Your task to perform on an android device: Go to accessibility settings Image 0: 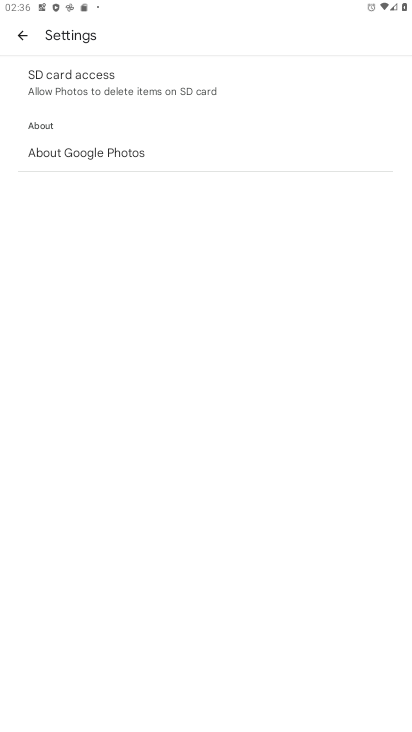
Step 0: press home button
Your task to perform on an android device: Go to accessibility settings Image 1: 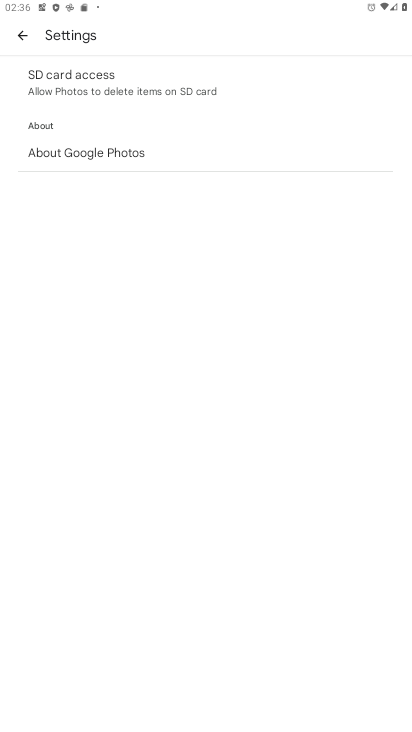
Step 1: press home button
Your task to perform on an android device: Go to accessibility settings Image 2: 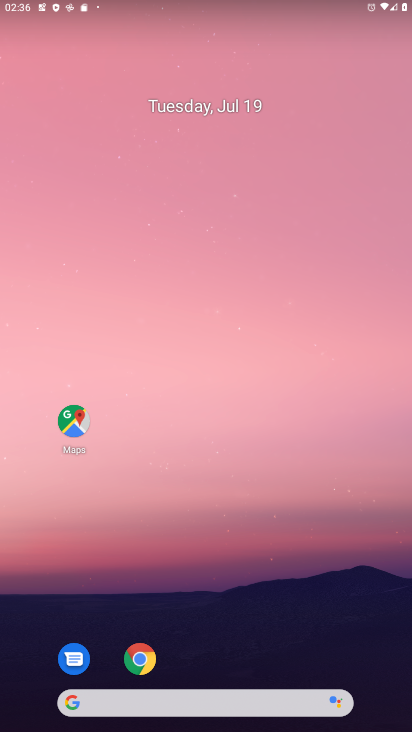
Step 2: drag from (271, 583) to (261, 9)
Your task to perform on an android device: Go to accessibility settings Image 3: 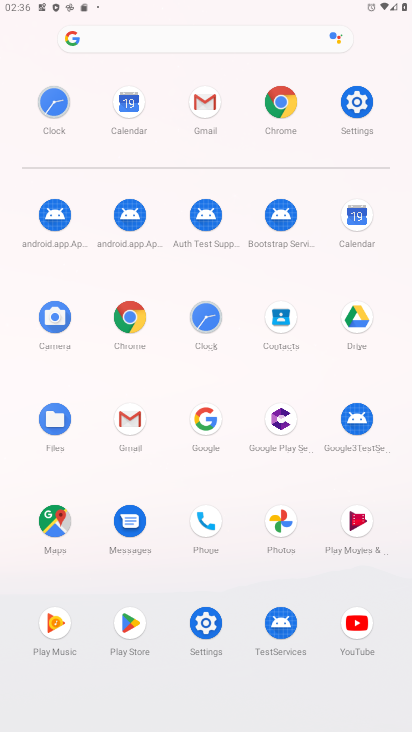
Step 3: click (214, 646)
Your task to perform on an android device: Go to accessibility settings Image 4: 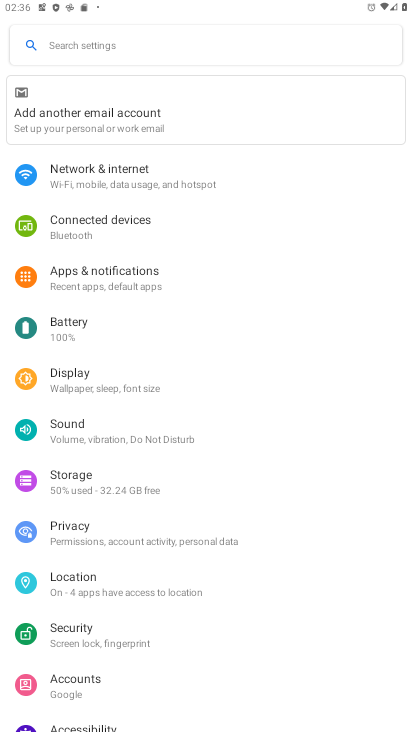
Step 4: drag from (130, 671) to (127, 355)
Your task to perform on an android device: Go to accessibility settings Image 5: 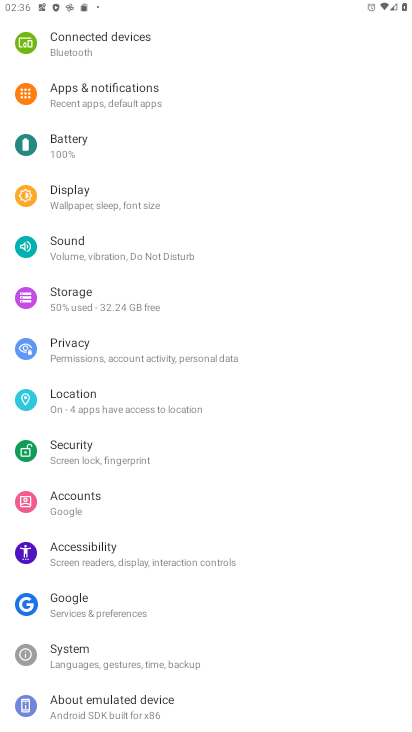
Step 5: click (102, 562)
Your task to perform on an android device: Go to accessibility settings Image 6: 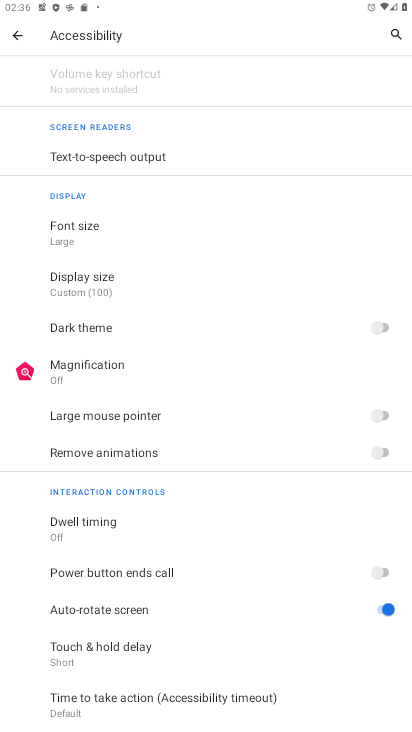
Step 6: task complete